Your task to perform on an android device: change the clock display to show seconds Image 0: 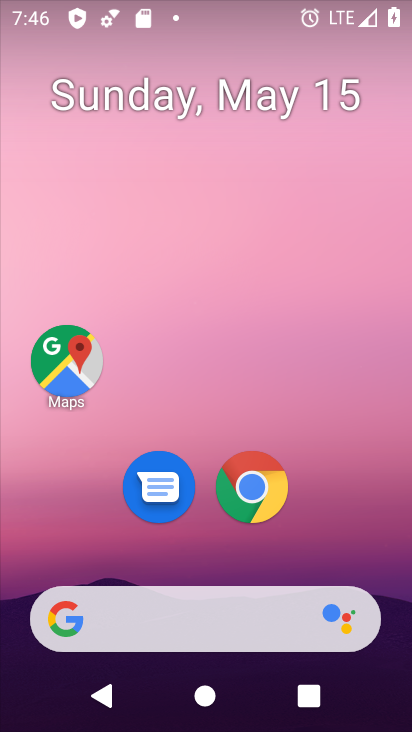
Step 0: drag from (362, 553) to (289, 133)
Your task to perform on an android device: change the clock display to show seconds Image 1: 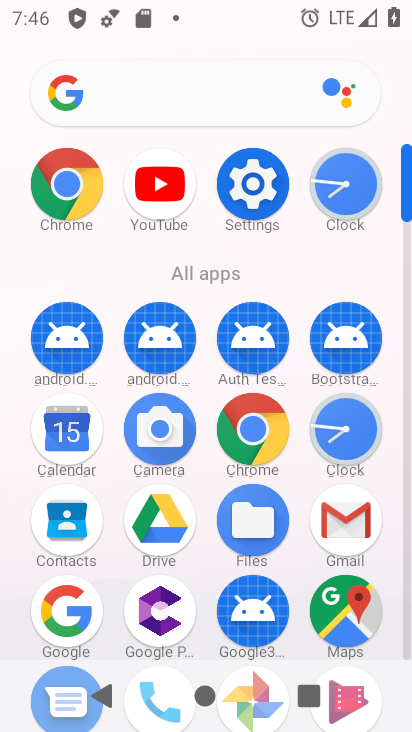
Step 1: drag from (303, 550) to (297, 253)
Your task to perform on an android device: change the clock display to show seconds Image 2: 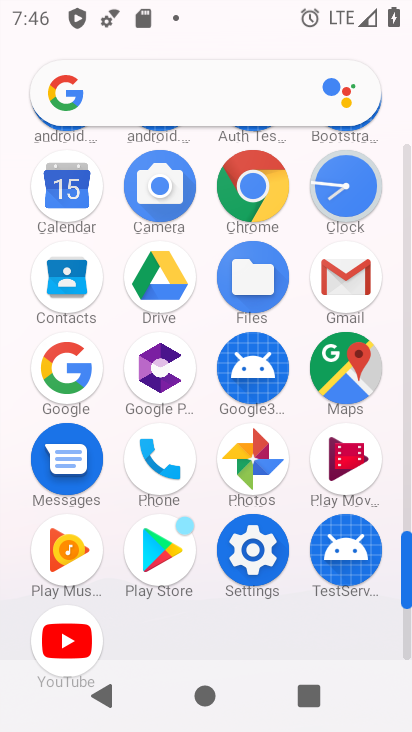
Step 2: click (350, 195)
Your task to perform on an android device: change the clock display to show seconds Image 3: 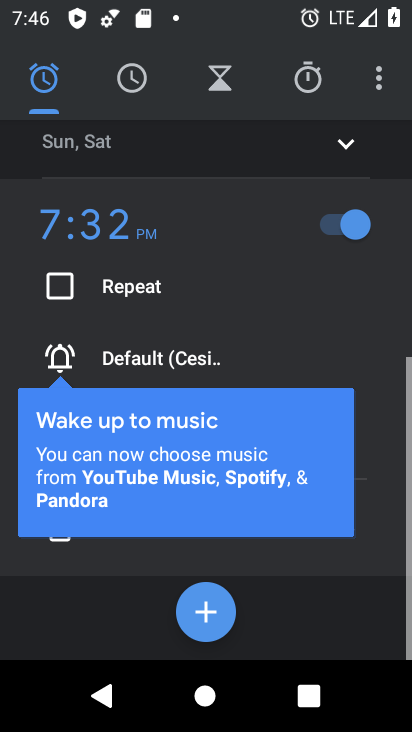
Step 3: click (390, 90)
Your task to perform on an android device: change the clock display to show seconds Image 4: 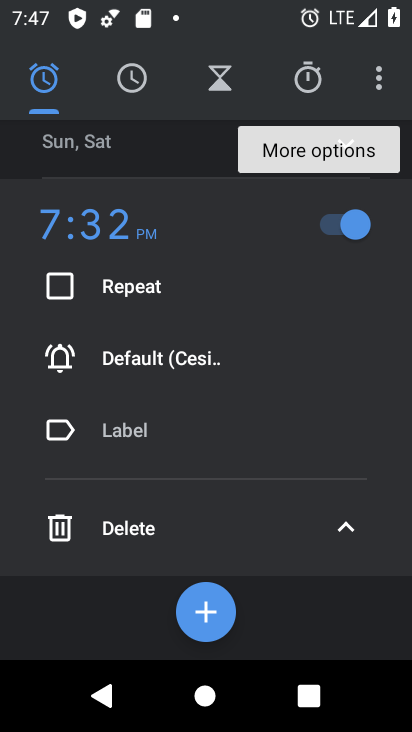
Step 4: click (362, 79)
Your task to perform on an android device: change the clock display to show seconds Image 5: 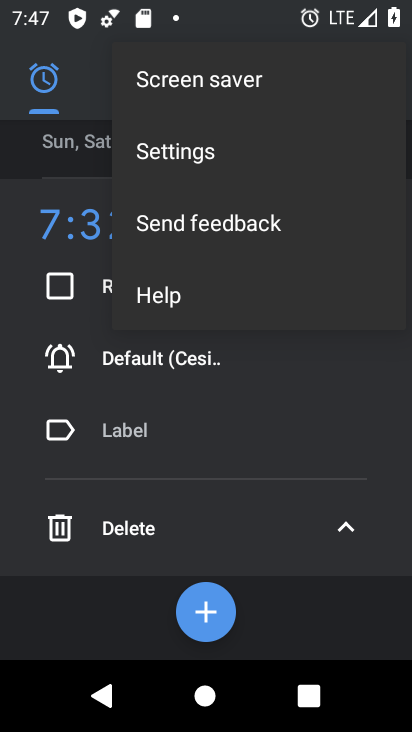
Step 5: click (287, 140)
Your task to perform on an android device: change the clock display to show seconds Image 6: 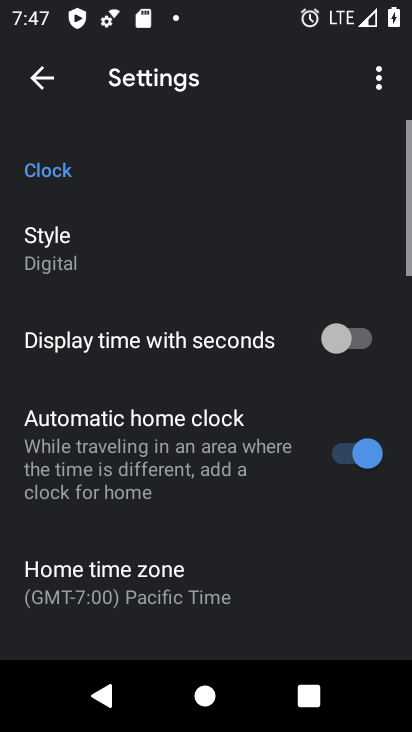
Step 6: click (150, 251)
Your task to perform on an android device: change the clock display to show seconds Image 7: 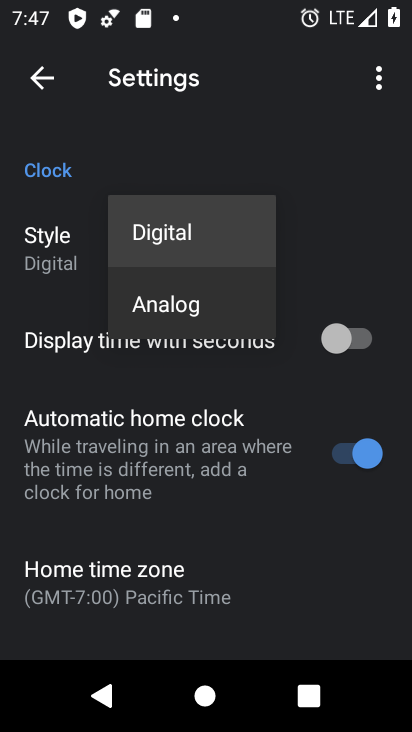
Step 7: click (165, 316)
Your task to perform on an android device: change the clock display to show seconds Image 8: 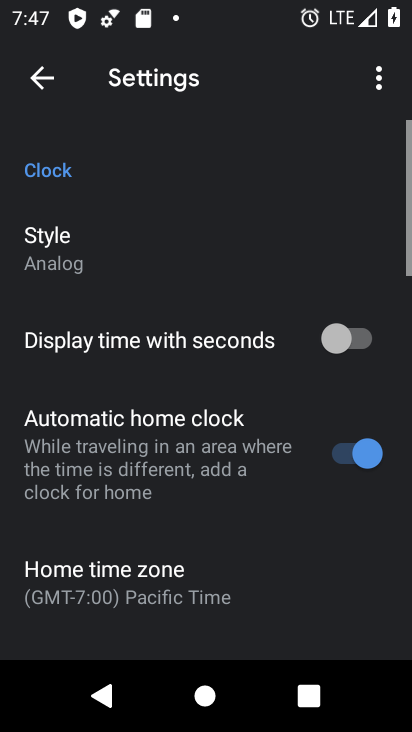
Step 8: task complete